Your task to perform on an android device: turn off wifi Image 0: 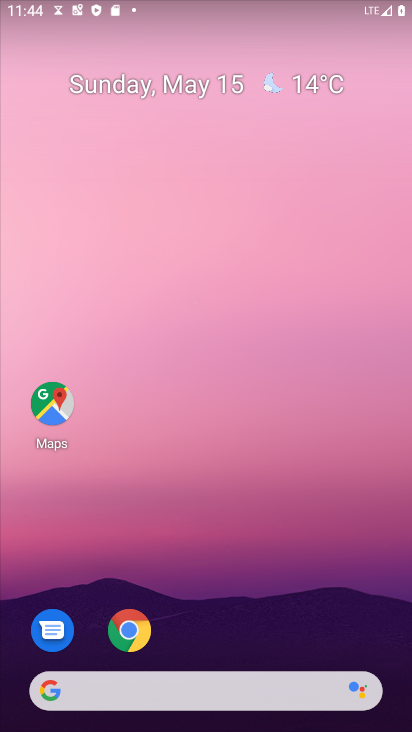
Step 0: drag from (244, 6) to (216, 551)
Your task to perform on an android device: turn off wifi Image 1: 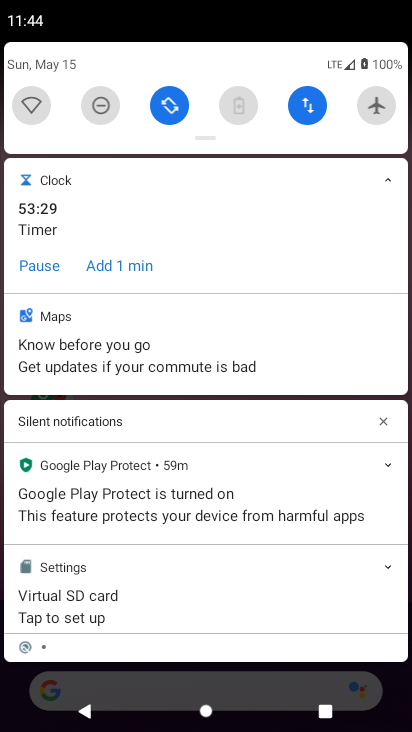
Step 1: click (34, 115)
Your task to perform on an android device: turn off wifi Image 2: 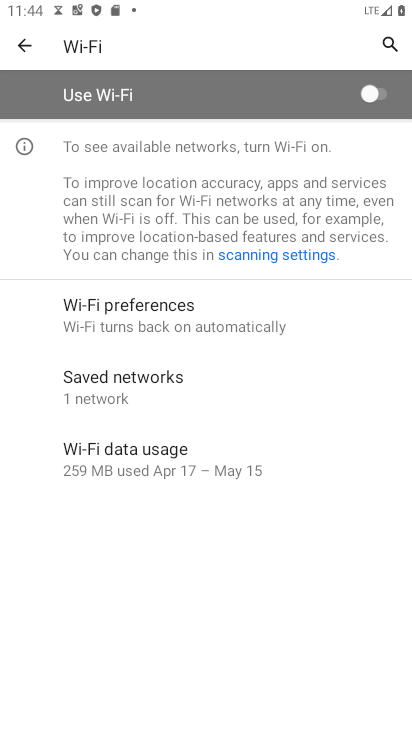
Step 2: task complete